Your task to perform on an android device: open app "Firefox Browser" (install if not already installed) Image 0: 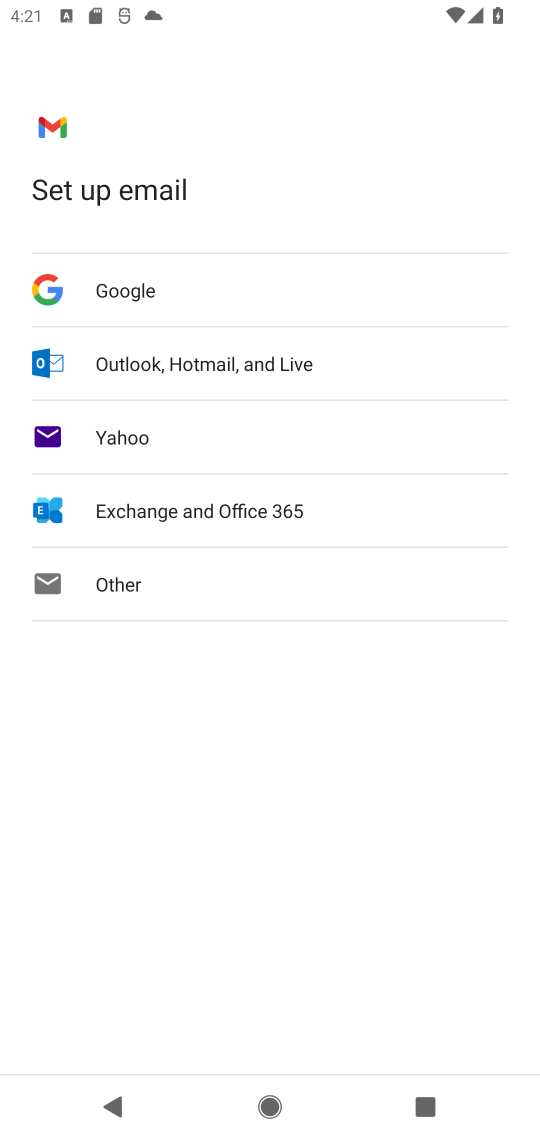
Step 0: press home button
Your task to perform on an android device: open app "Firefox Browser" (install if not already installed) Image 1: 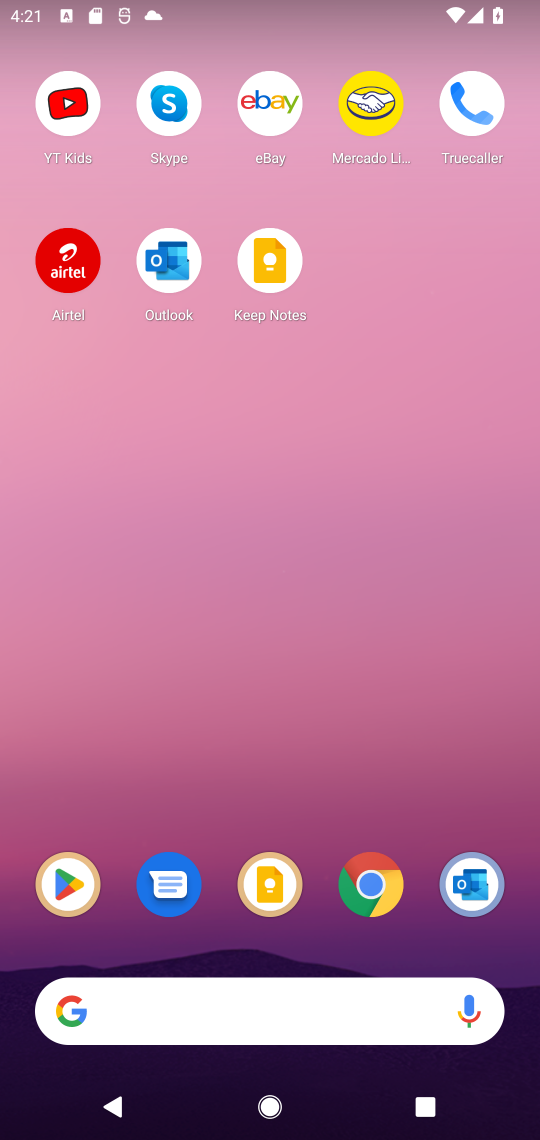
Step 1: click (71, 880)
Your task to perform on an android device: open app "Firefox Browser" (install if not already installed) Image 2: 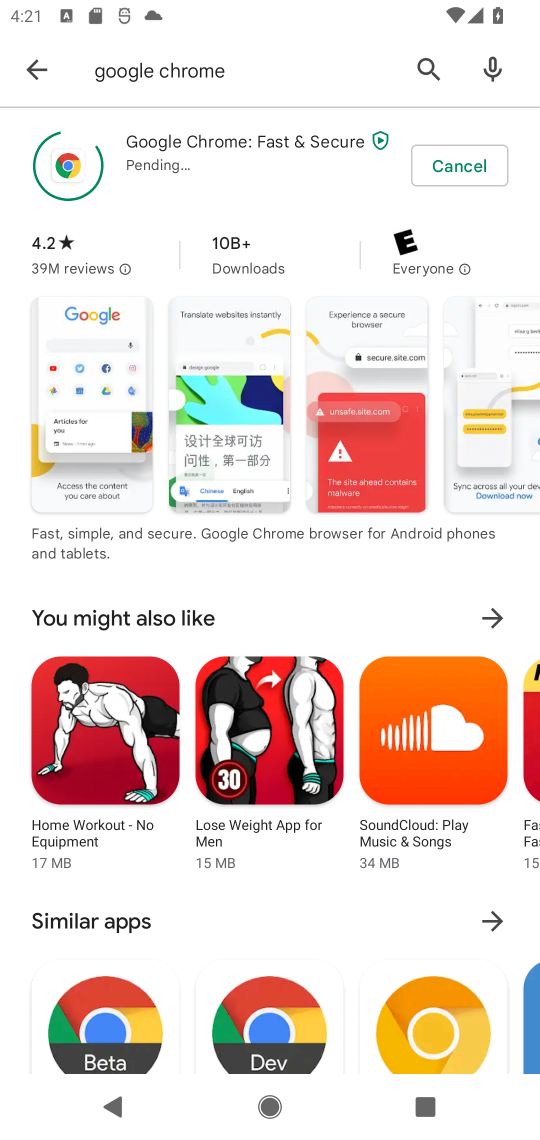
Step 2: click (45, 134)
Your task to perform on an android device: open app "Firefox Browser" (install if not already installed) Image 3: 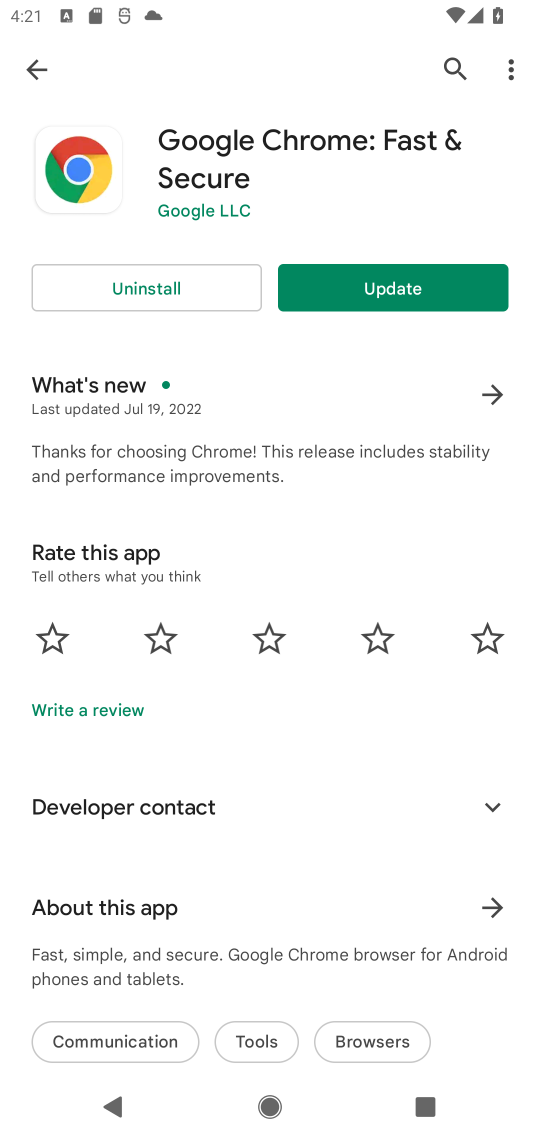
Step 3: click (35, 68)
Your task to perform on an android device: open app "Firefox Browser" (install if not already installed) Image 4: 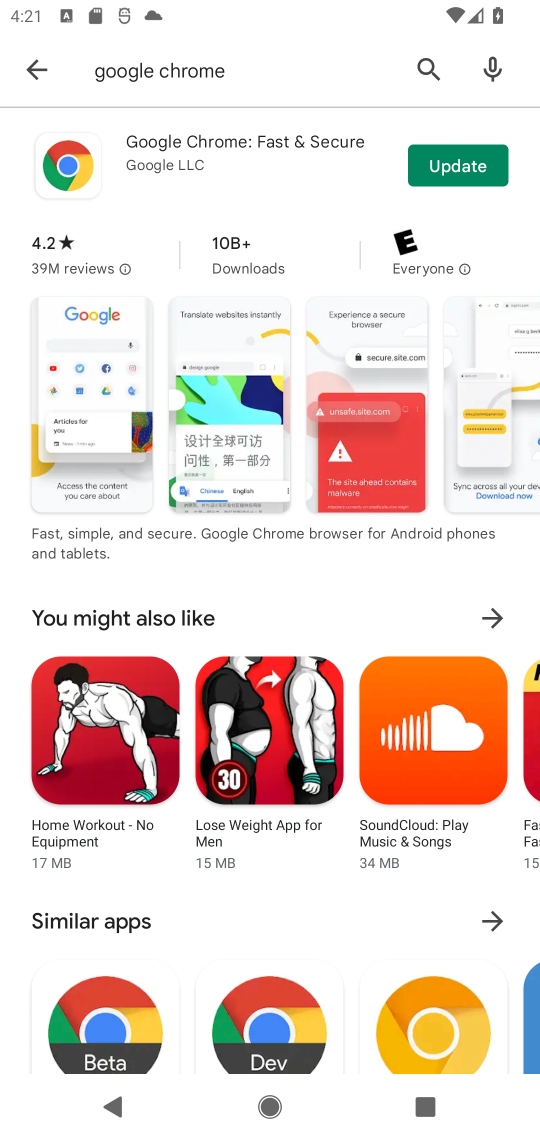
Step 4: click (47, 71)
Your task to perform on an android device: open app "Firefox Browser" (install if not already installed) Image 5: 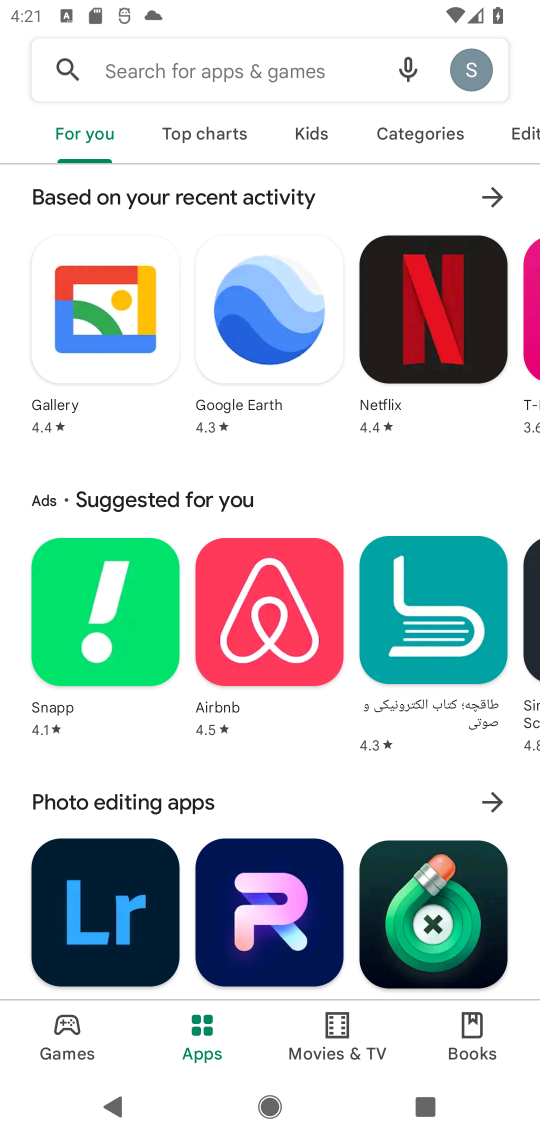
Step 5: click (68, 71)
Your task to perform on an android device: open app "Firefox Browser" (install if not already installed) Image 6: 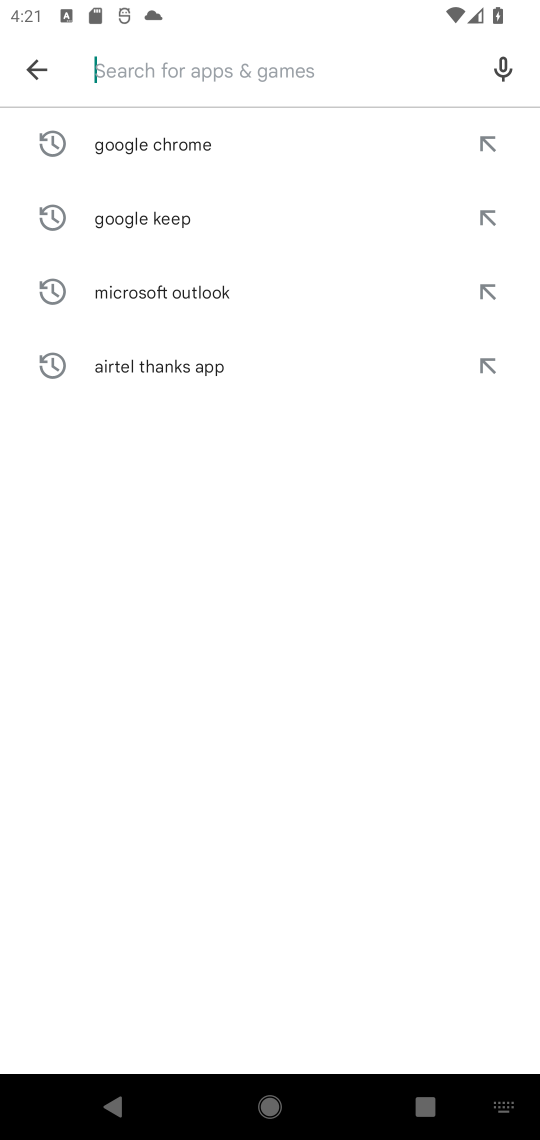
Step 6: type "Firefox Browser"
Your task to perform on an android device: open app "Firefox Browser" (install if not already installed) Image 7: 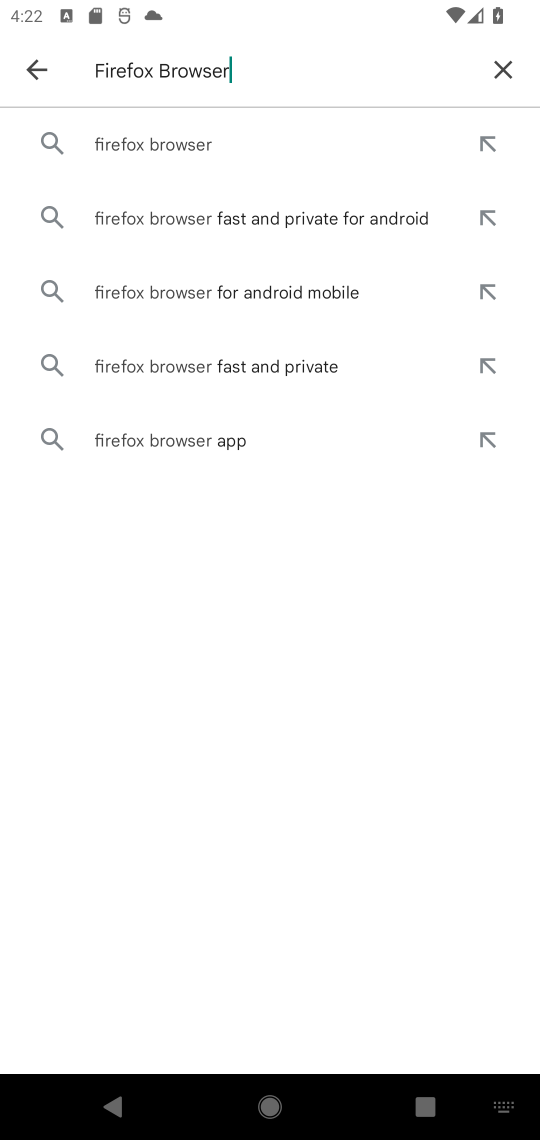
Step 7: click (140, 150)
Your task to perform on an android device: open app "Firefox Browser" (install if not already installed) Image 8: 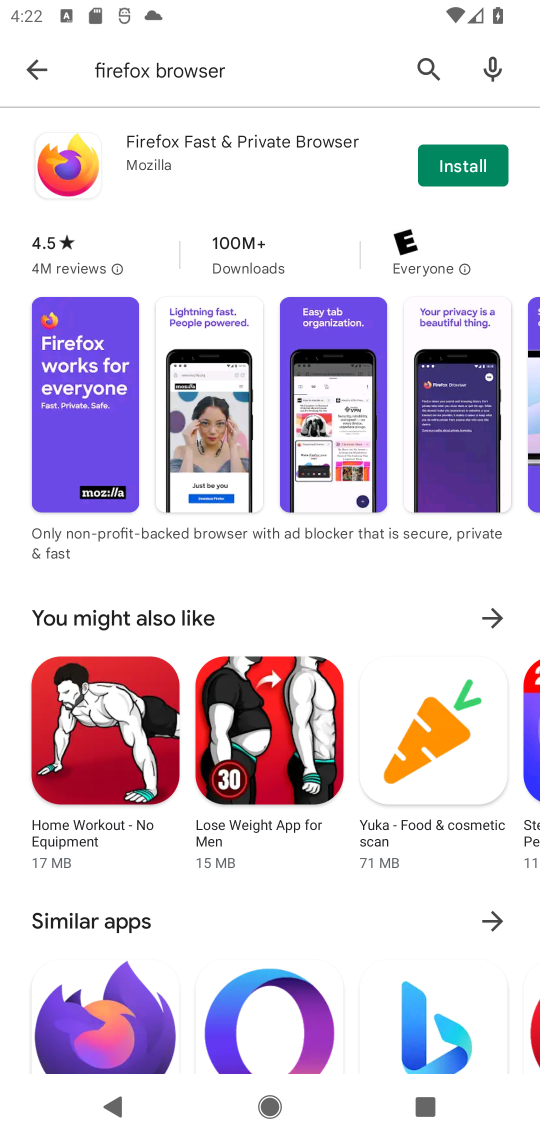
Step 8: click (466, 161)
Your task to perform on an android device: open app "Firefox Browser" (install if not already installed) Image 9: 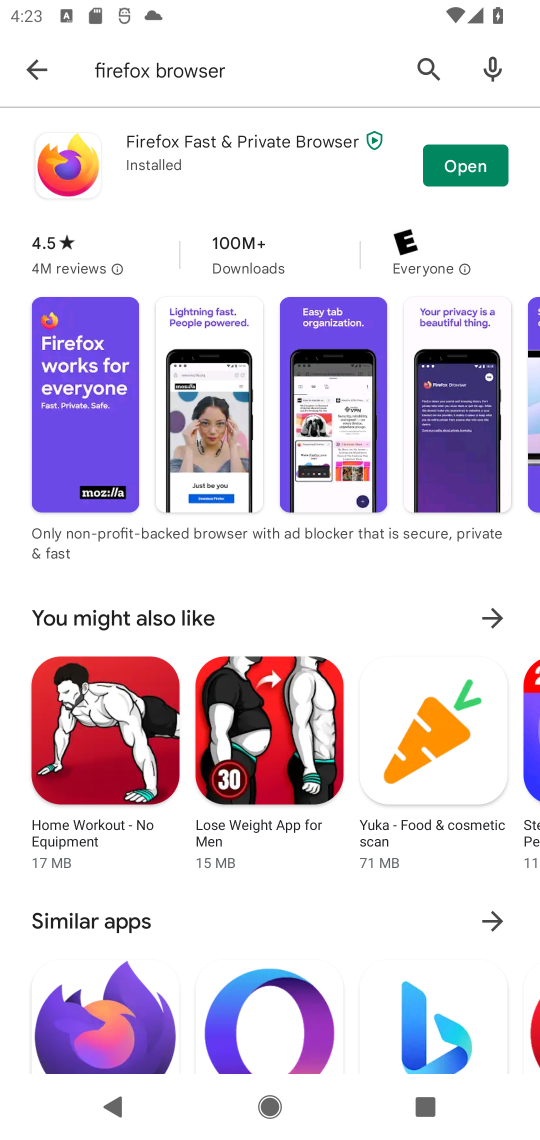
Step 9: click (461, 165)
Your task to perform on an android device: open app "Firefox Browser" (install if not already installed) Image 10: 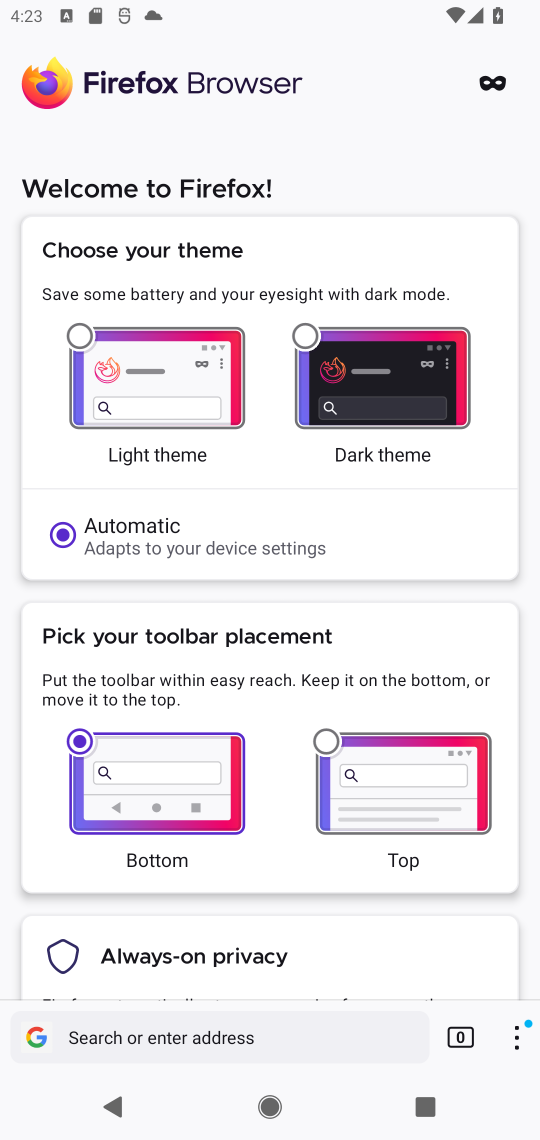
Step 10: task complete